Your task to perform on an android device: open wifi settings Image 0: 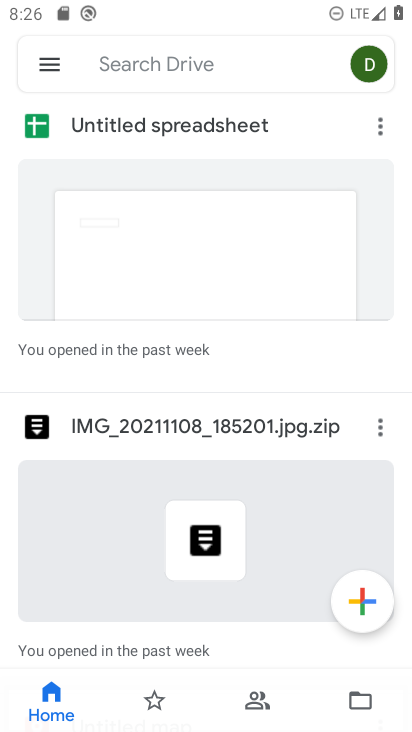
Step 0: press home button
Your task to perform on an android device: open wifi settings Image 1: 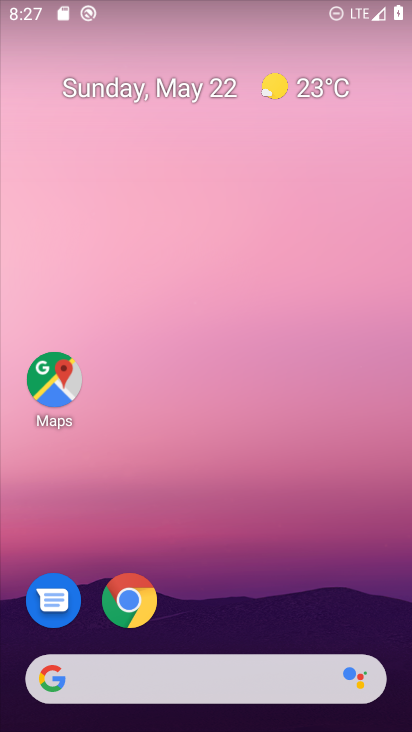
Step 1: drag from (327, 607) to (232, 99)
Your task to perform on an android device: open wifi settings Image 2: 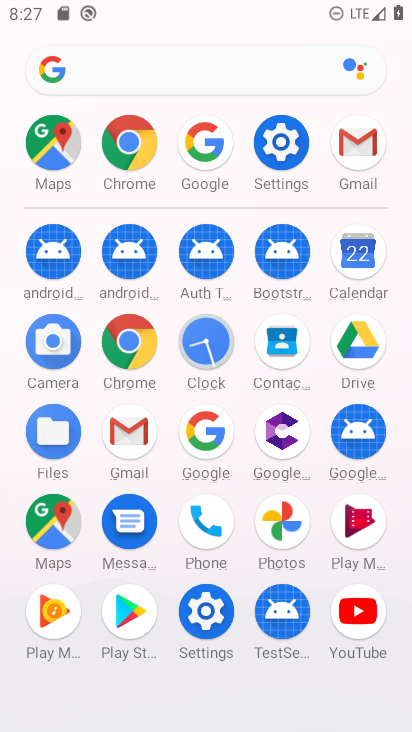
Step 2: click (208, 630)
Your task to perform on an android device: open wifi settings Image 3: 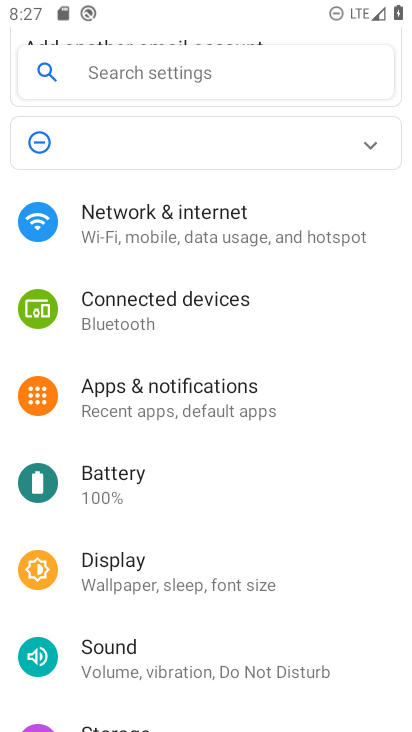
Step 3: click (117, 231)
Your task to perform on an android device: open wifi settings Image 4: 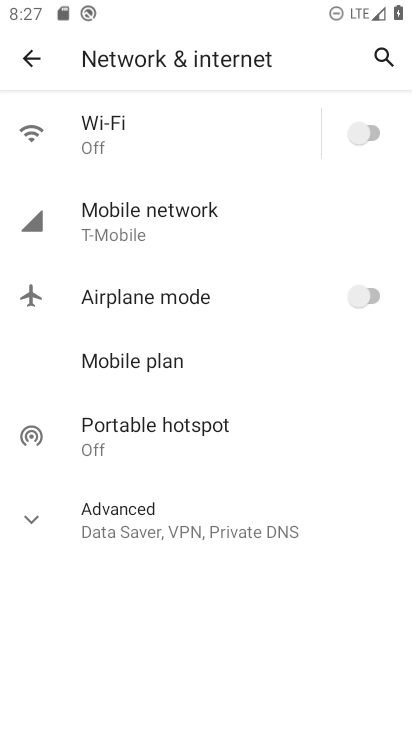
Step 4: click (207, 132)
Your task to perform on an android device: open wifi settings Image 5: 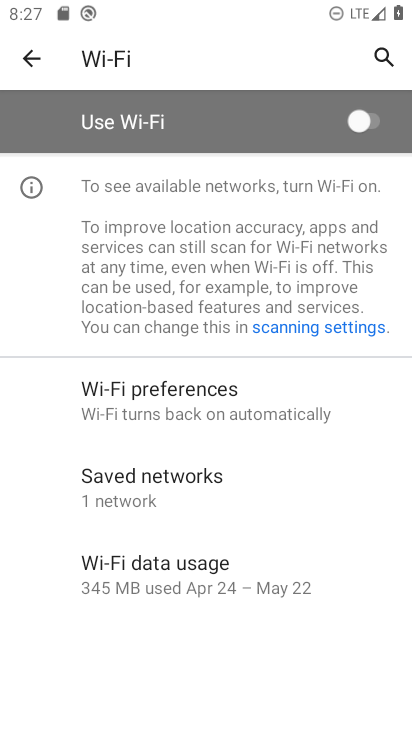
Step 5: task complete